Your task to perform on an android device: delete browsing data in the chrome app Image 0: 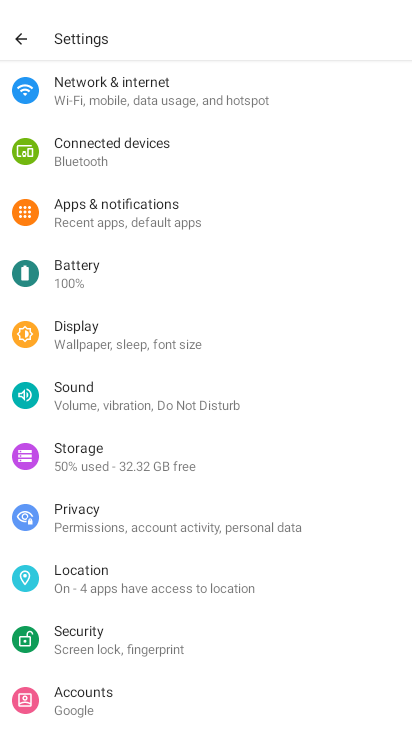
Step 0: press home button
Your task to perform on an android device: delete browsing data in the chrome app Image 1: 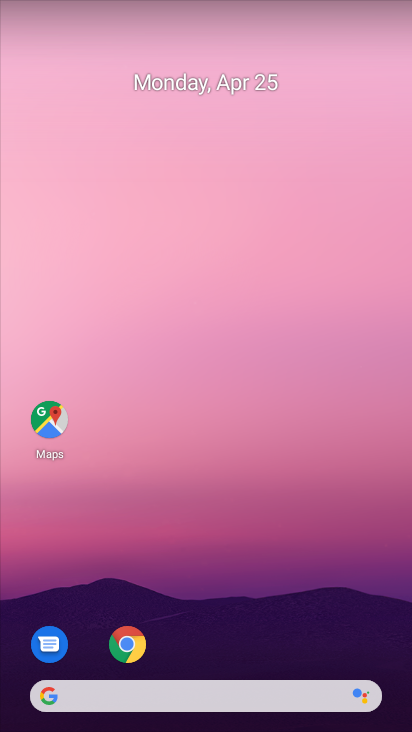
Step 1: drag from (219, 647) to (143, 161)
Your task to perform on an android device: delete browsing data in the chrome app Image 2: 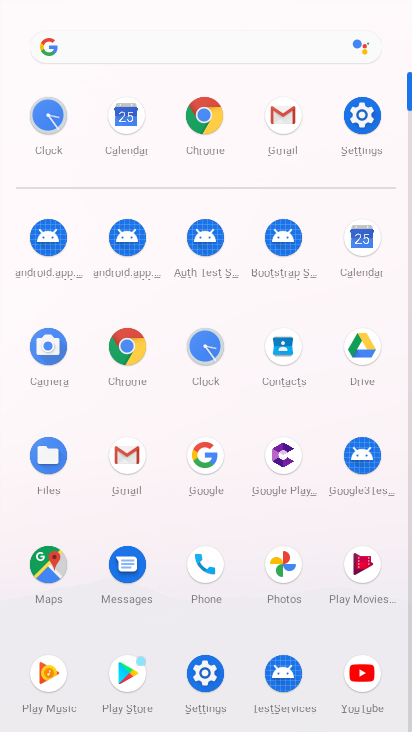
Step 2: click (129, 344)
Your task to perform on an android device: delete browsing data in the chrome app Image 3: 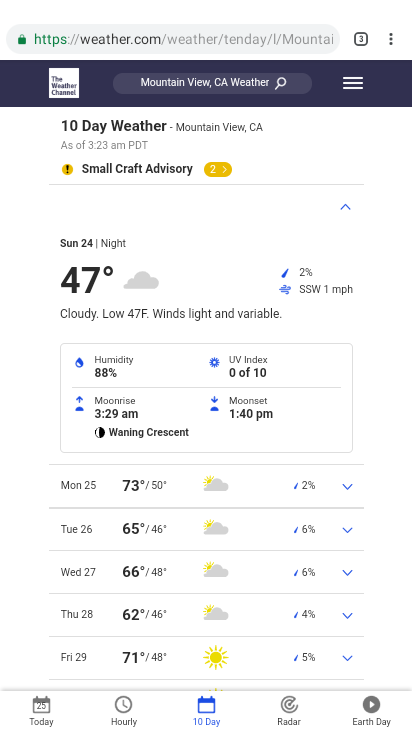
Step 3: drag from (391, 42) to (277, 269)
Your task to perform on an android device: delete browsing data in the chrome app Image 4: 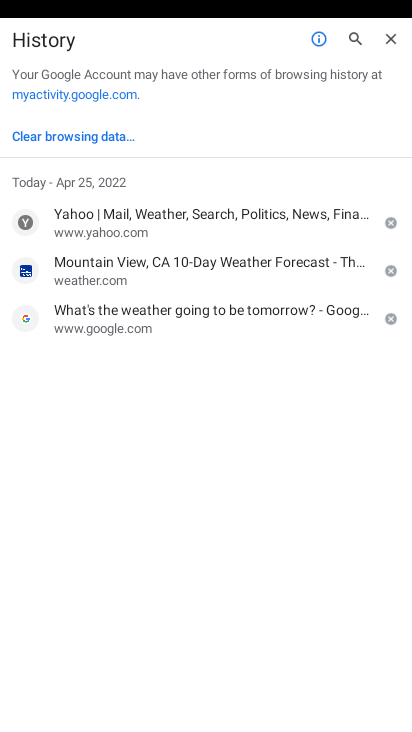
Step 4: click (56, 142)
Your task to perform on an android device: delete browsing data in the chrome app Image 5: 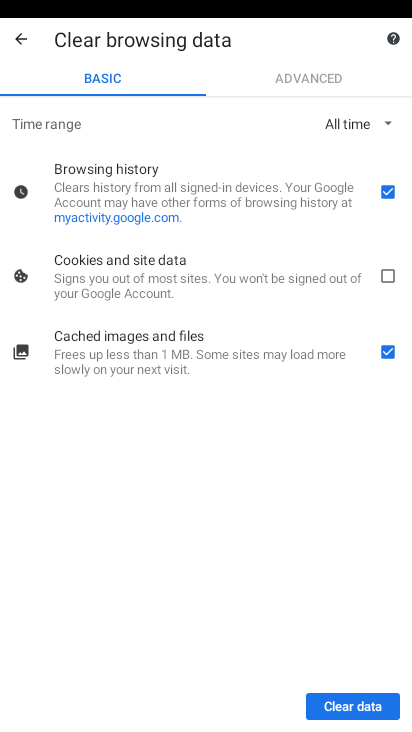
Step 5: click (364, 713)
Your task to perform on an android device: delete browsing data in the chrome app Image 6: 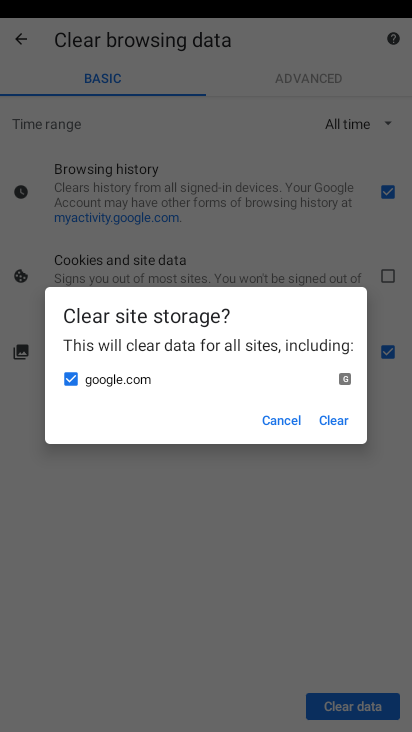
Step 6: click (330, 428)
Your task to perform on an android device: delete browsing data in the chrome app Image 7: 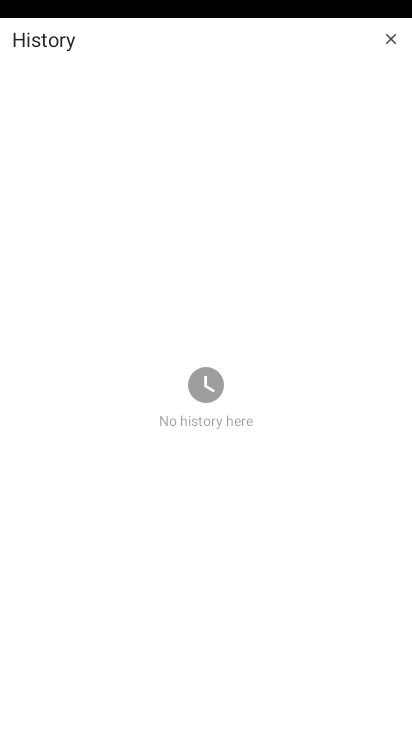
Step 7: task complete